Your task to perform on an android device: open device folders in google photos Image 0: 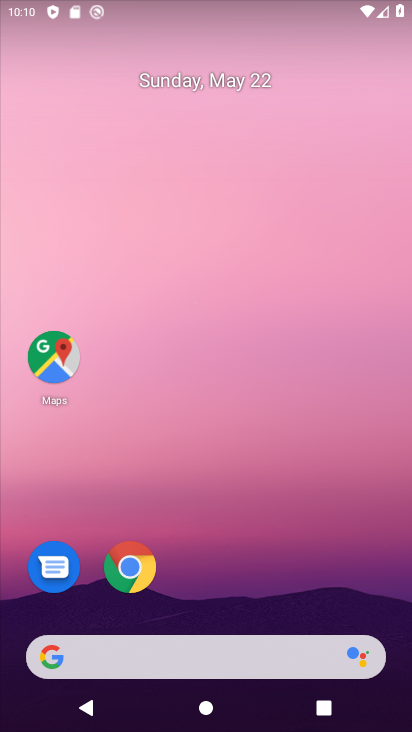
Step 0: drag from (385, 609) to (351, 84)
Your task to perform on an android device: open device folders in google photos Image 1: 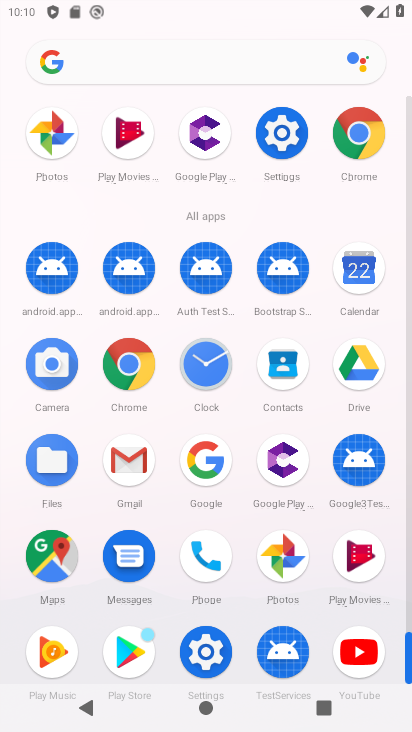
Step 1: click (408, 684)
Your task to perform on an android device: open device folders in google photos Image 2: 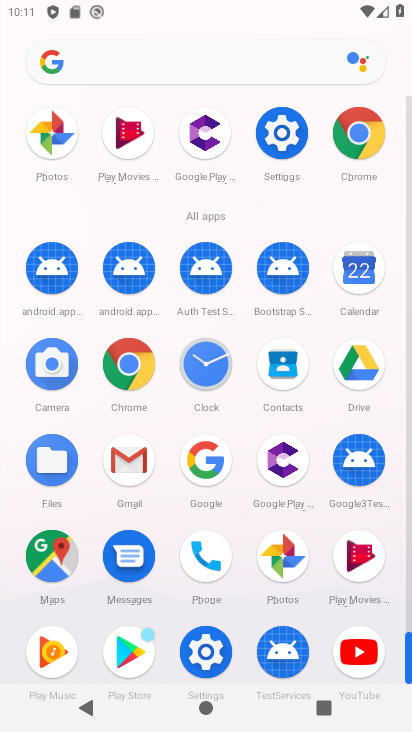
Step 2: click (282, 553)
Your task to perform on an android device: open device folders in google photos Image 3: 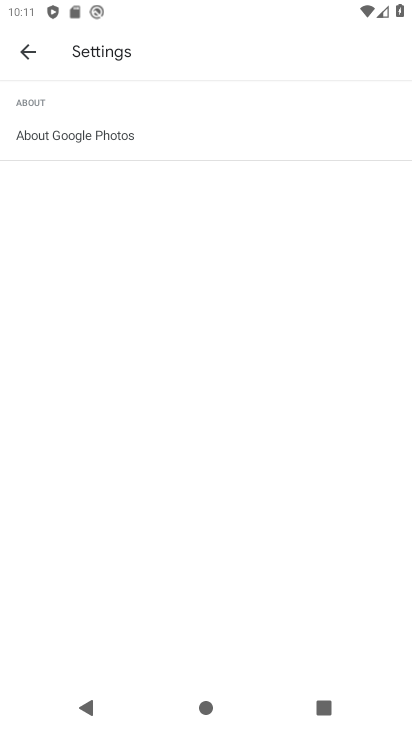
Step 3: press back button
Your task to perform on an android device: open device folders in google photos Image 4: 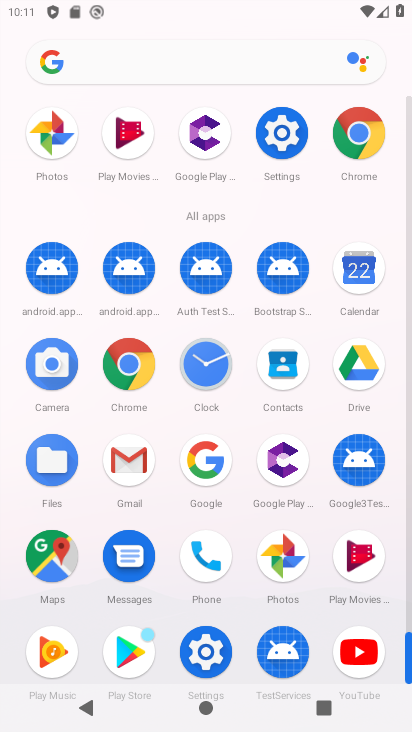
Step 4: click (283, 556)
Your task to perform on an android device: open device folders in google photos Image 5: 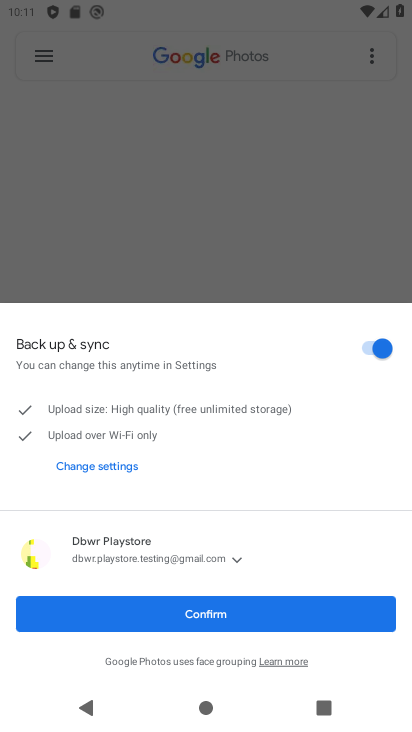
Step 5: click (204, 616)
Your task to perform on an android device: open device folders in google photos Image 6: 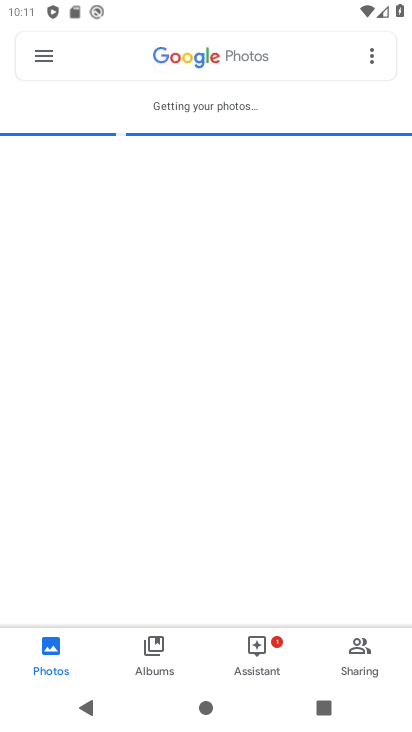
Step 6: click (197, 609)
Your task to perform on an android device: open device folders in google photos Image 7: 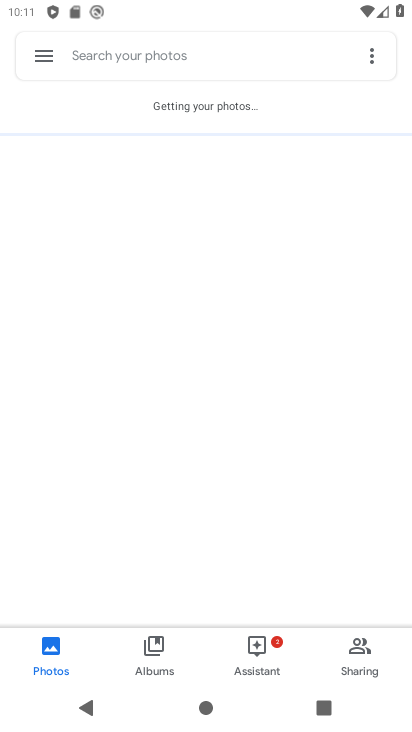
Step 7: click (41, 55)
Your task to perform on an android device: open device folders in google photos Image 8: 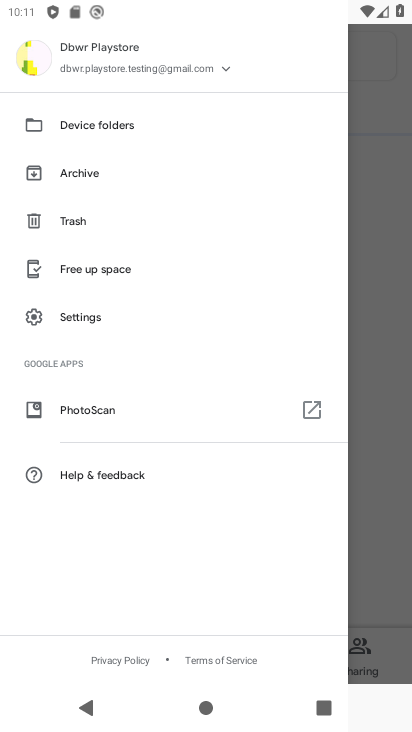
Step 8: click (87, 121)
Your task to perform on an android device: open device folders in google photos Image 9: 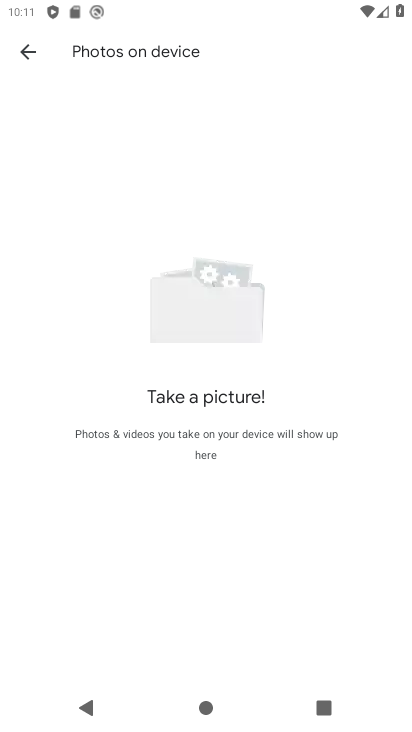
Step 9: task complete